Your task to perform on an android device: Search for Italian restaurants on Maps Image 0: 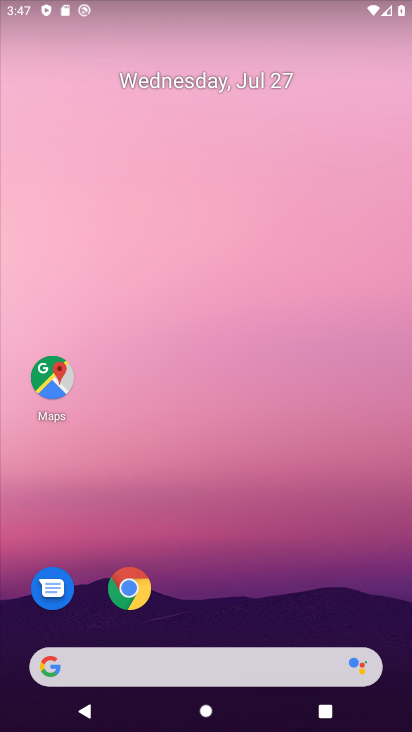
Step 0: press home button
Your task to perform on an android device: Search for Italian restaurants on Maps Image 1: 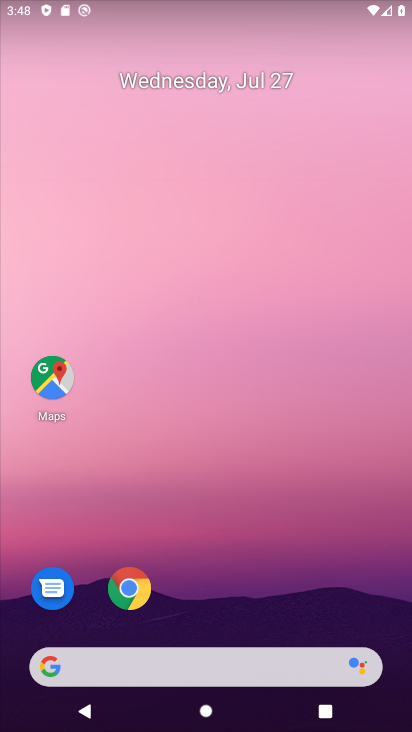
Step 1: click (49, 372)
Your task to perform on an android device: Search for Italian restaurants on Maps Image 2: 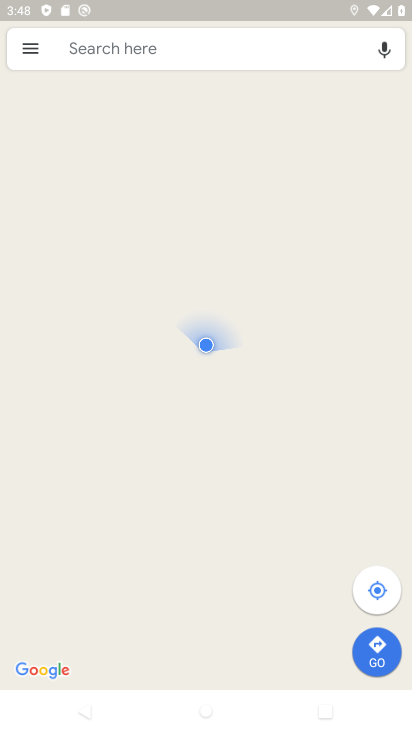
Step 2: click (228, 50)
Your task to perform on an android device: Search for Italian restaurants on Maps Image 3: 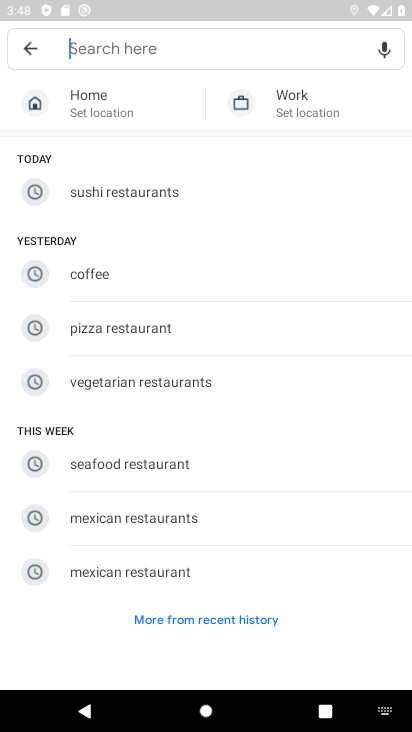
Step 3: press enter
Your task to perform on an android device: Search for Italian restaurants on Maps Image 4: 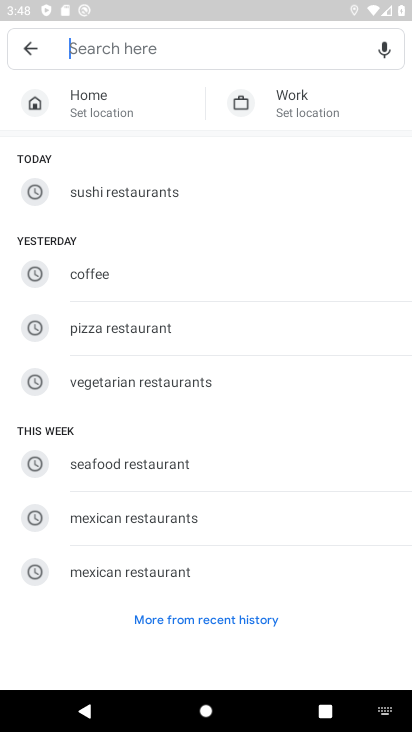
Step 4: type "Italian restaurants"
Your task to perform on an android device: Search for Italian restaurants on Maps Image 5: 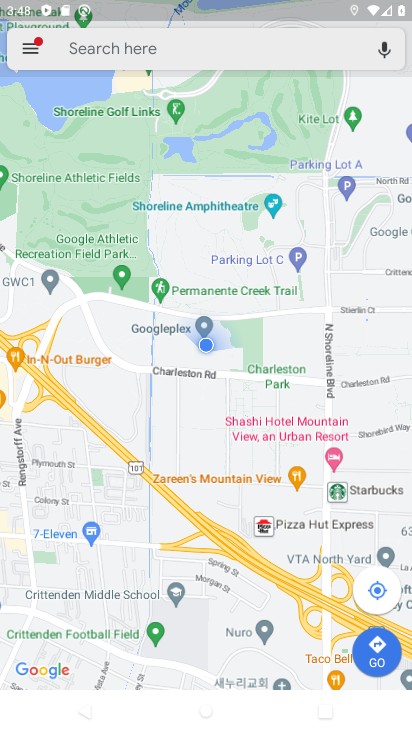
Step 5: press enter
Your task to perform on an android device: Search for Italian restaurants on Maps Image 6: 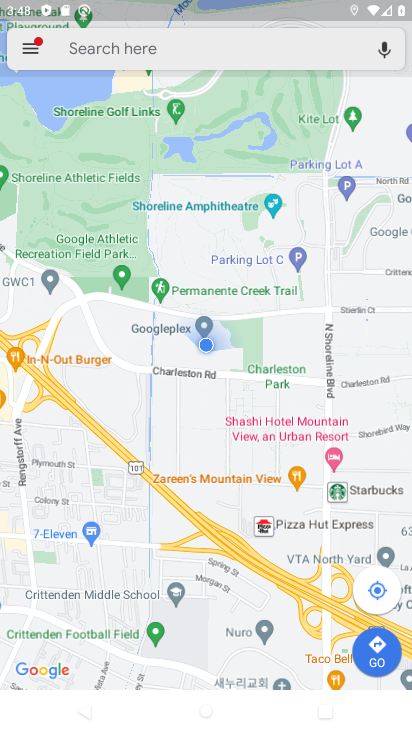
Step 6: click (85, 48)
Your task to perform on an android device: Search for Italian restaurants on Maps Image 7: 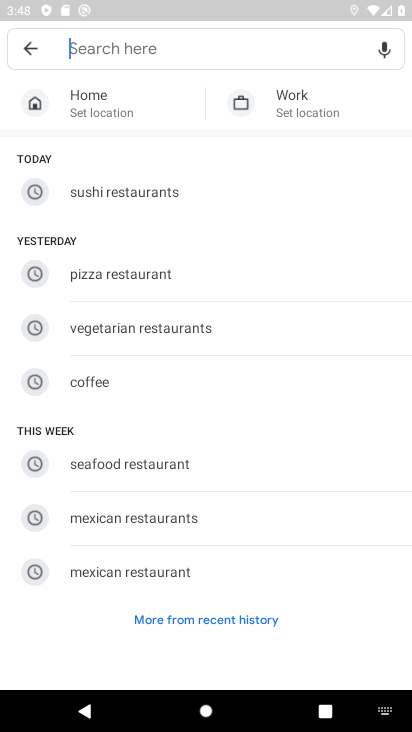
Step 7: type "Italian restaurants"
Your task to perform on an android device: Search for Italian restaurants on Maps Image 8: 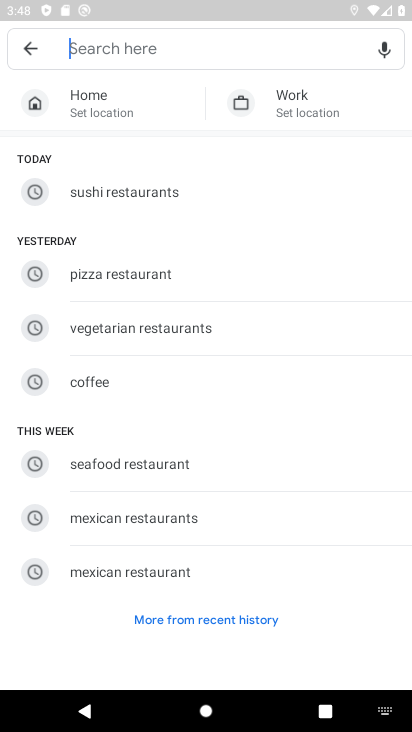
Step 8: click (160, 44)
Your task to perform on an android device: Search for Italian restaurants on Maps Image 9: 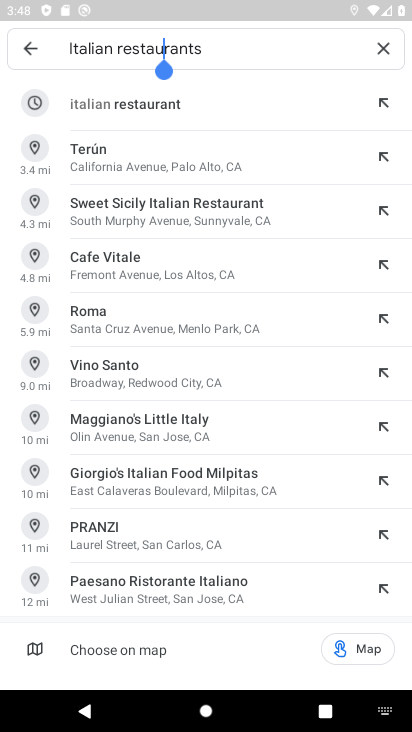
Step 9: click (130, 96)
Your task to perform on an android device: Search for Italian restaurants on Maps Image 10: 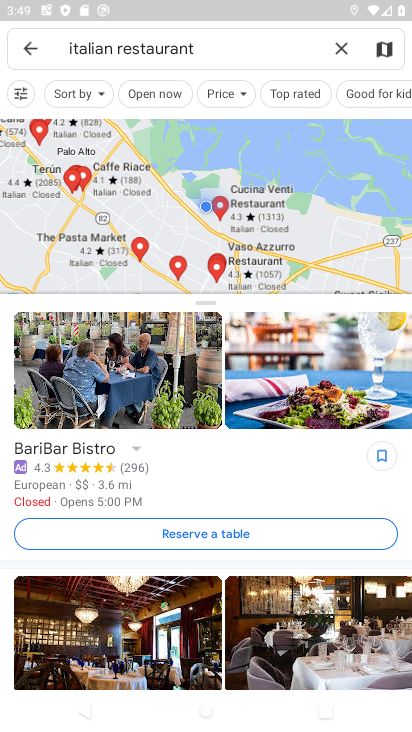
Step 10: task complete